Your task to perform on an android device: Go to wifi settings Image 0: 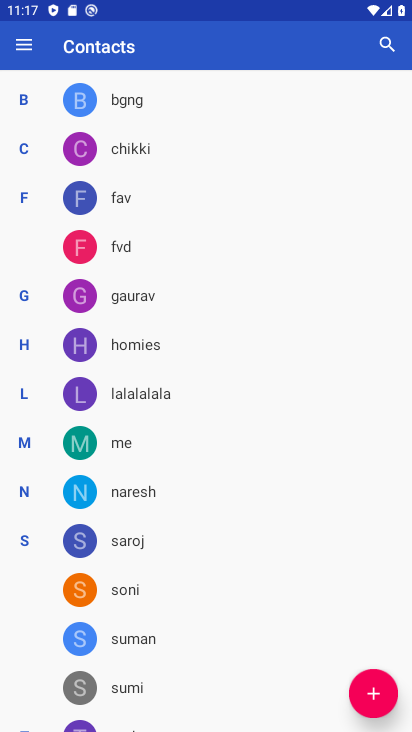
Step 0: press home button
Your task to perform on an android device: Go to wifi settings Image 1: 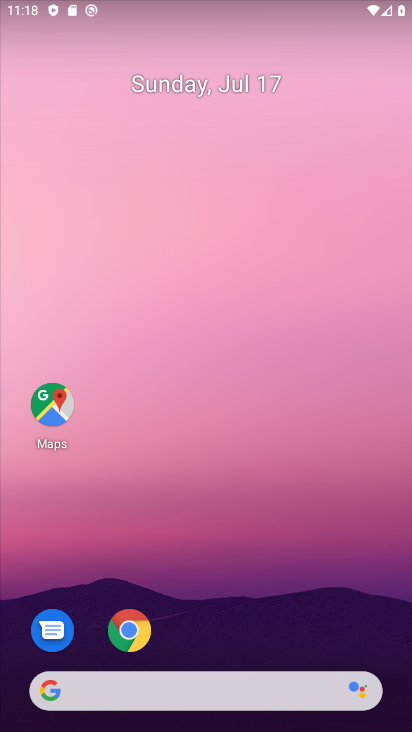
Step 1: drag from (187, 604) to (229, 12)
Your task to perform on an android device: Go to wifi settings Image 2: 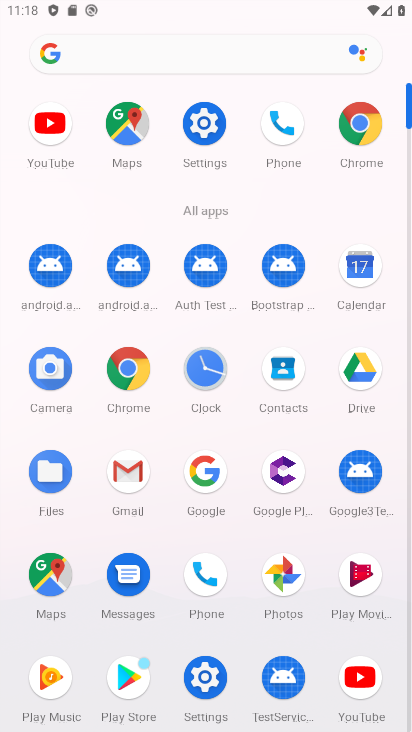
Step 2: click (213, 135)
Your task to perform on an android device: Go to wifi settings Image 3: 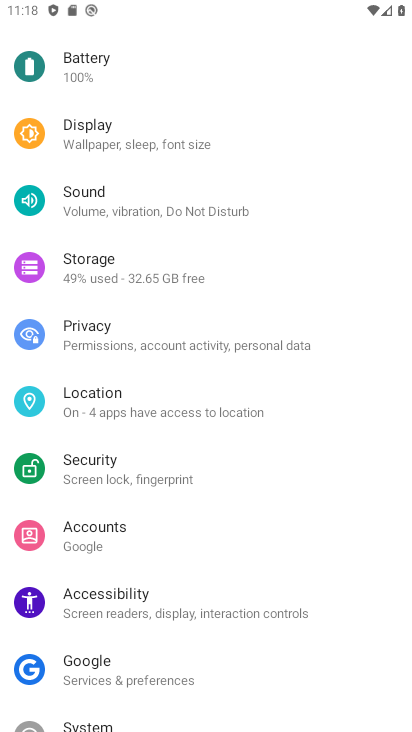
Step 3: drag from (162, 130) to (171, 420)
Your task to perform on an android device: Go to wifi settings Image 4: 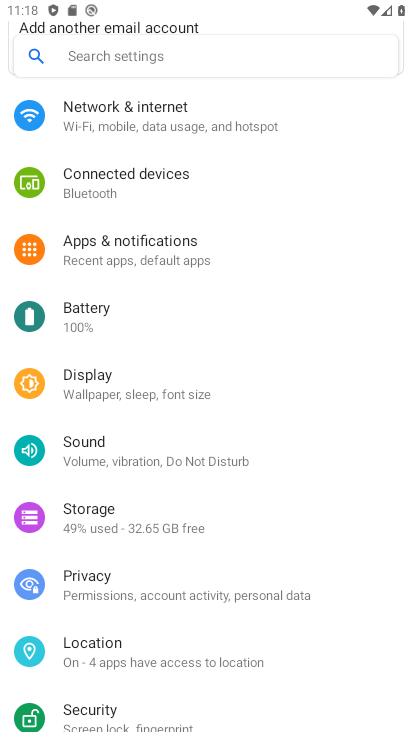
Step 4: click (115, 120)
Your task to perform on an android device: Go to wifi settings Image 5: 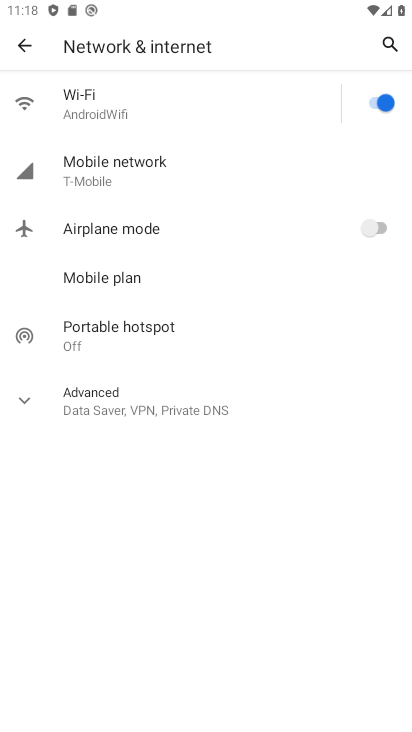
Step 5: click (104, 107)
Your task to perform on an android device: Go to wifi settings Image 6: 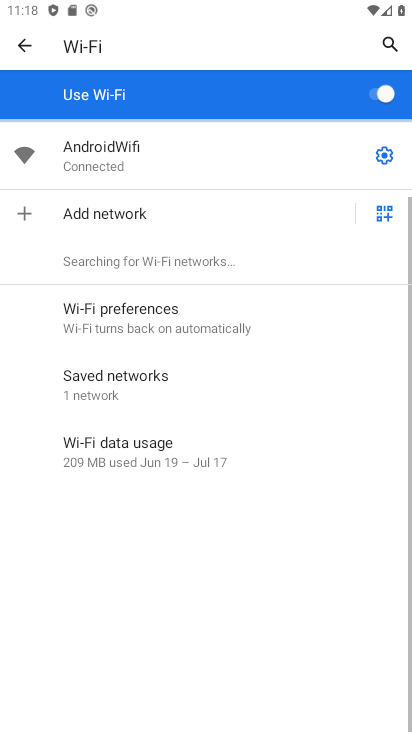
Step 6: task complete